Your task to perform on an android device: open chrome privacy settings Image 0: 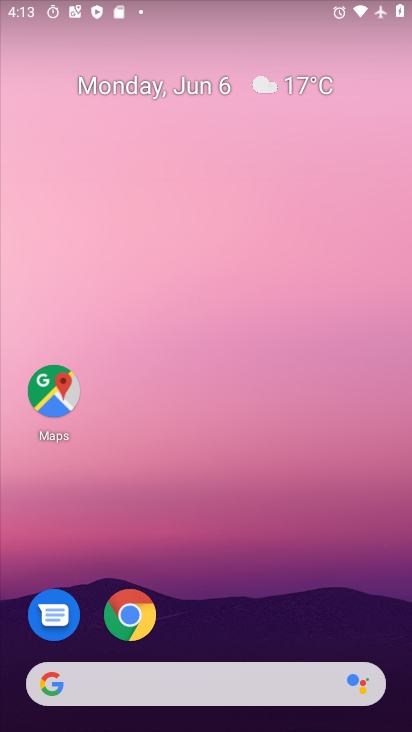
Step 0: drag from (302, 566) to (204, 7)
Your task to perform on an android device: open chrome privacy settings Image 1: 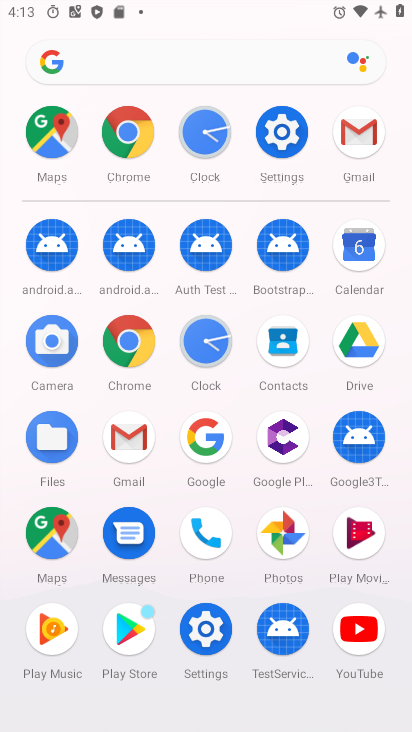
Step 1: drag from (10, 484) to (30, 313)
Your task to perform on an android device: open chrome privacy settings Image 2: 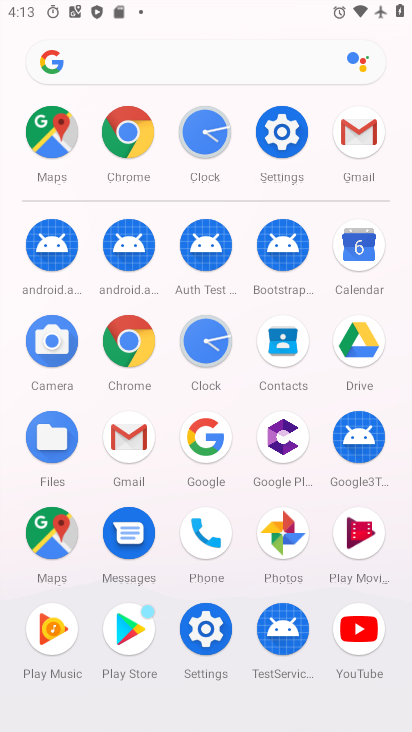
Step 2: click (127, 336)
Your task to perform on an android device: open chrome privacy settings Image 3: 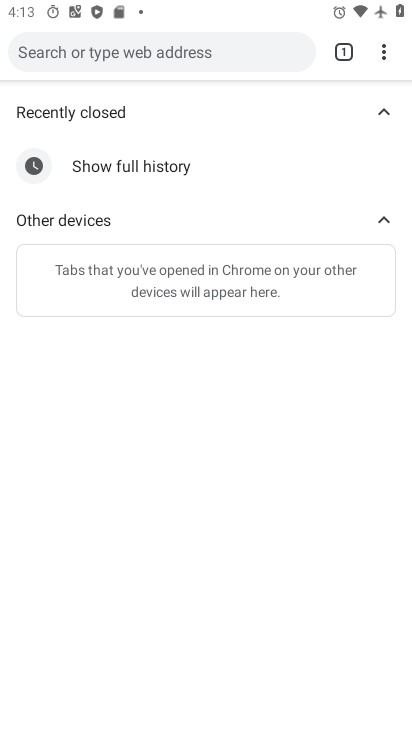
Step 3: drag from (383, 52) to (213, 434)
Your task to perform on an android device: open chrome privacy settings Image 4: 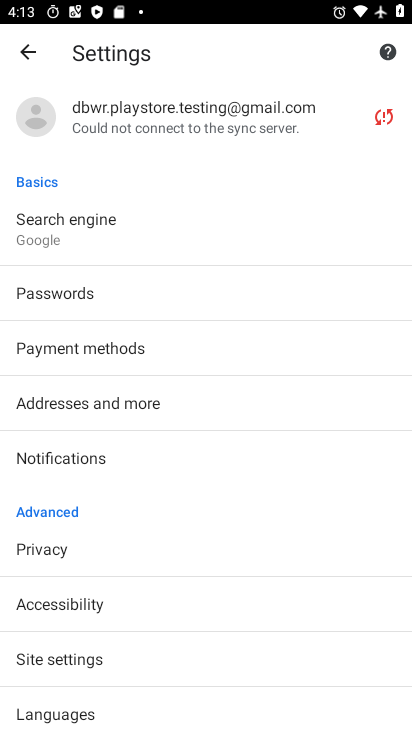
Step 4: click (96, 550)
Your task to perform on an android device: open chrome privacy settings Image 5: 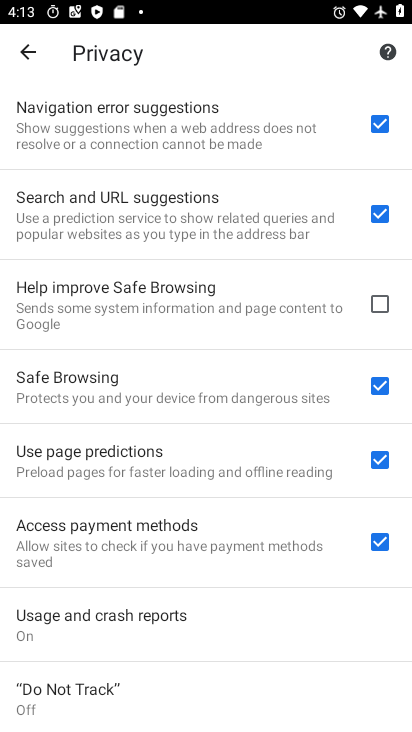
Step 5: task complete